Your task to perform on an android device: Open calendar and show me the fourth week of next month Image 0: 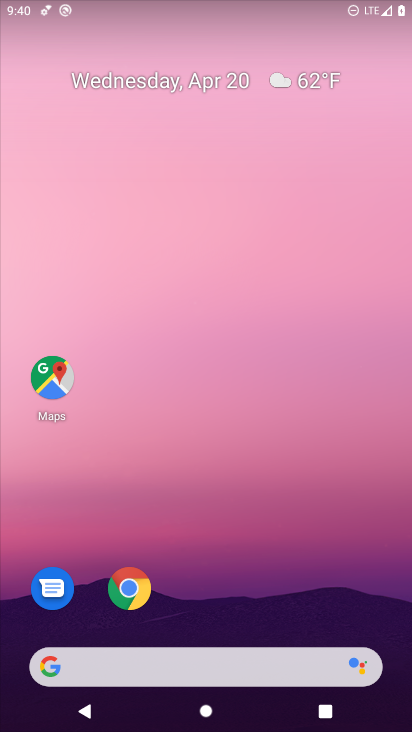
Step 0: drag from (206, 626) to (218, 43)
Your task to perform on an android device: Open calendar and show me the fourth week of next month Image 1: 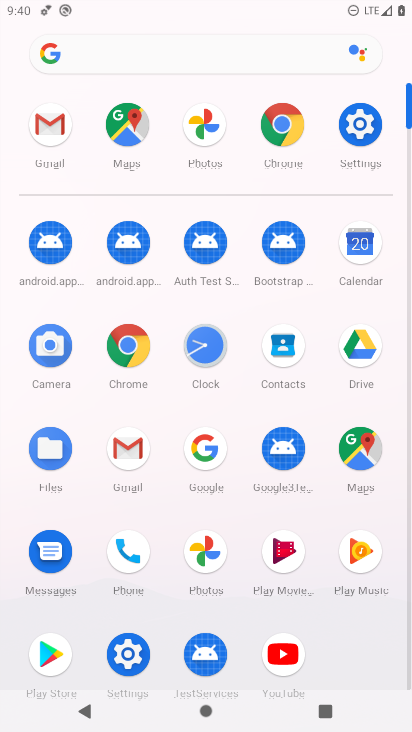
Step 1: click (359, 238)
Your task to perform on an android device: Open calendar and show me the fourth week of next month Image 2: 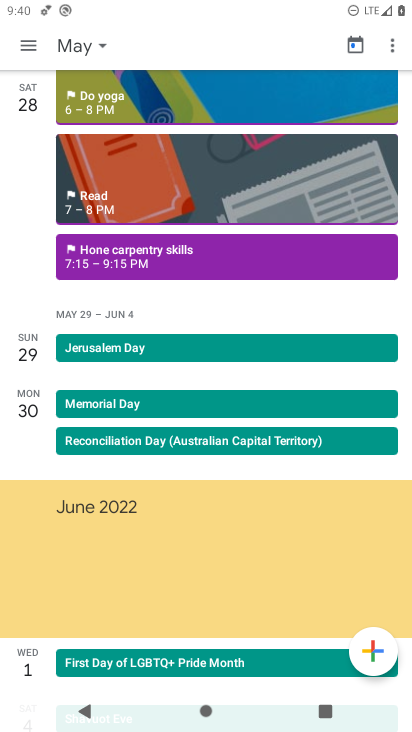
Step 2: click (28, 39)
Your task to perform on an android device: Open calendar and show me the fourth week of next month Image 3: 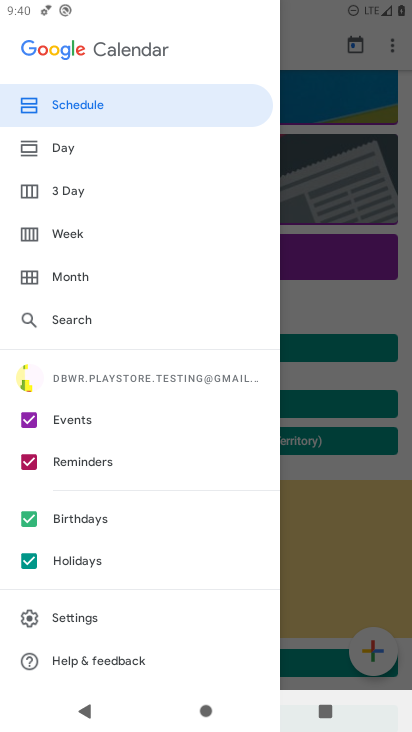
Step 3: click (66, 232)
Your task to perform on an android device: Open calendar and show me the fourth week of next month Image 4: 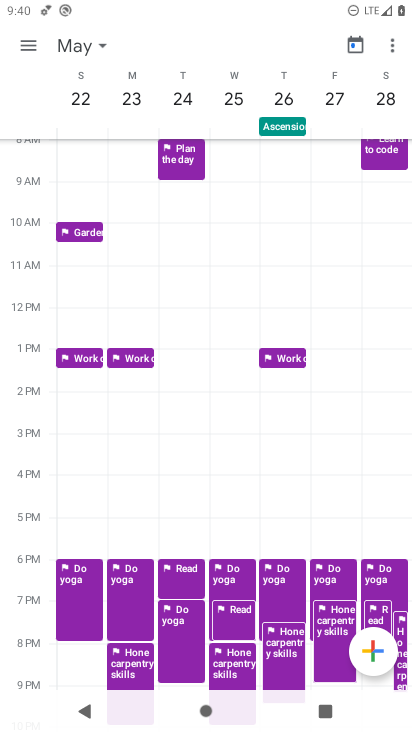
Step 4: click (76, 94)
Your task to perform on an android device: Open calendar and show me the fourth week of next month Image 5: 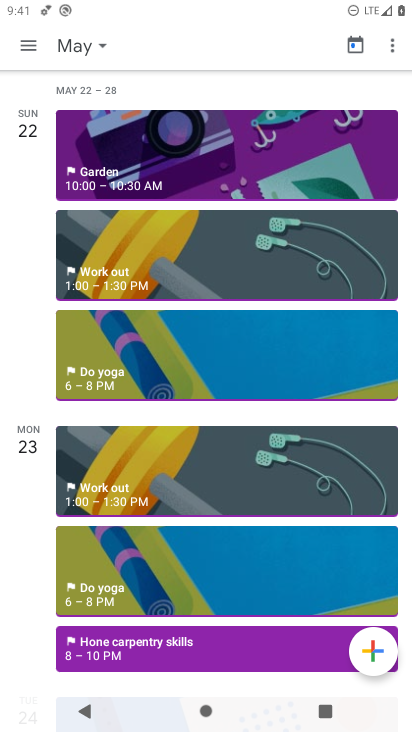
Step 5: task complete